Your task to perform on an android device: open chrome and create a bookmark for the current page Image 0: 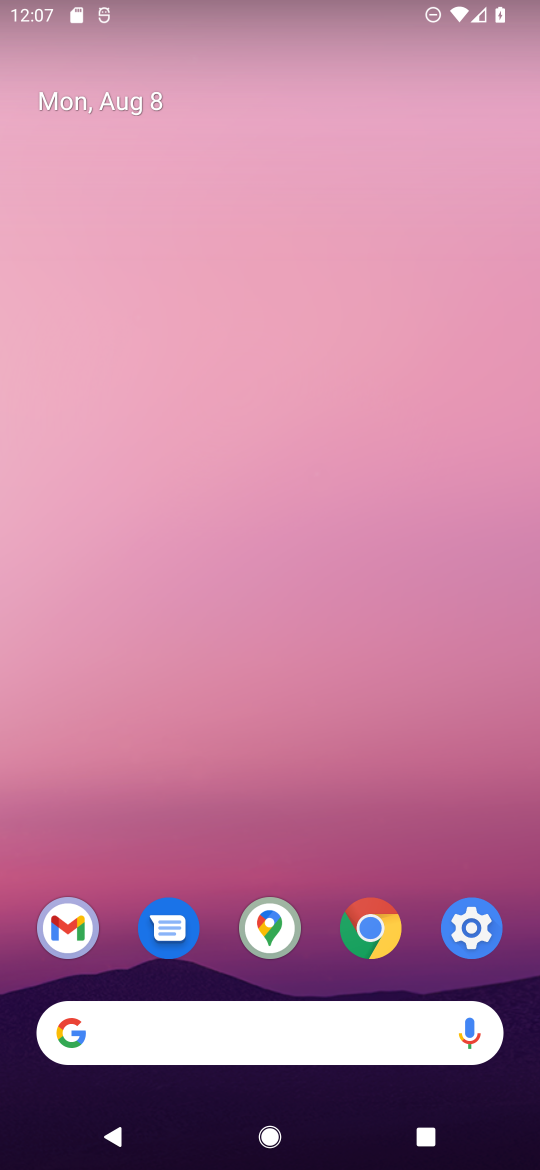
Step 0: press home button
Your task to perform on an android device: open chrome and create a bookmark for the current page Image 1: 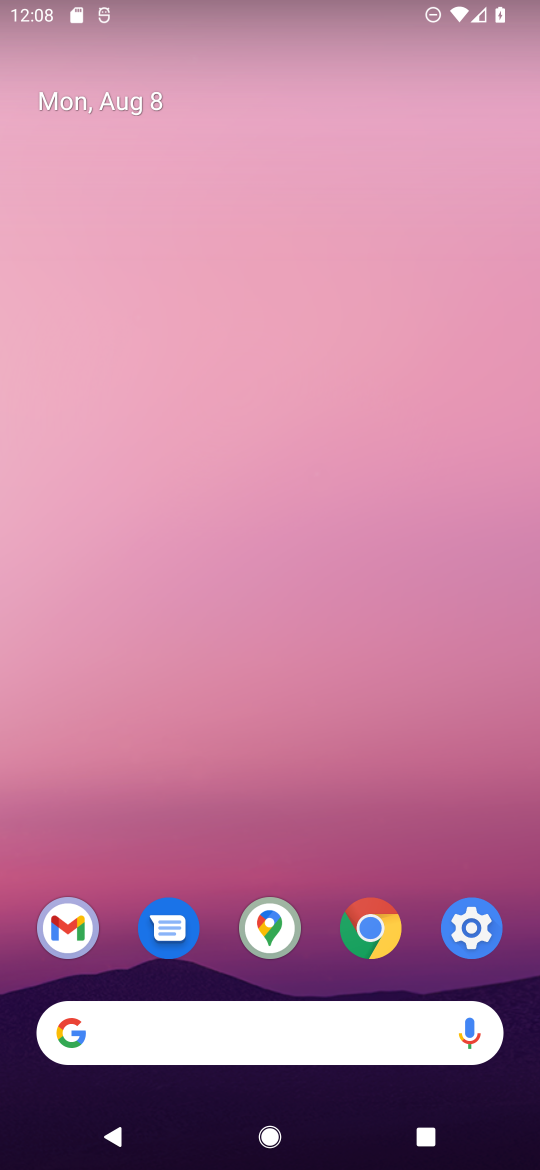
Step 1: drag from (341, 1080) to (199, 51)
Your task to perform on an android device: open chrome and create a bookmark for the current page Image 2: 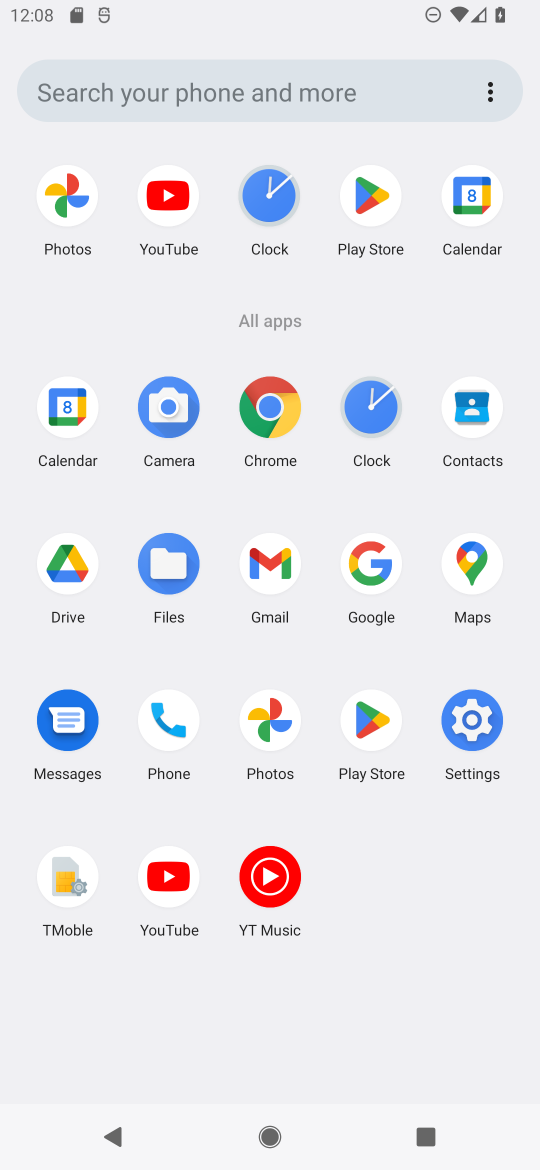
Step 2: click (268, 419)
Your task to perform on an android device: open chrome and create a bookmark for the current page Image 3: 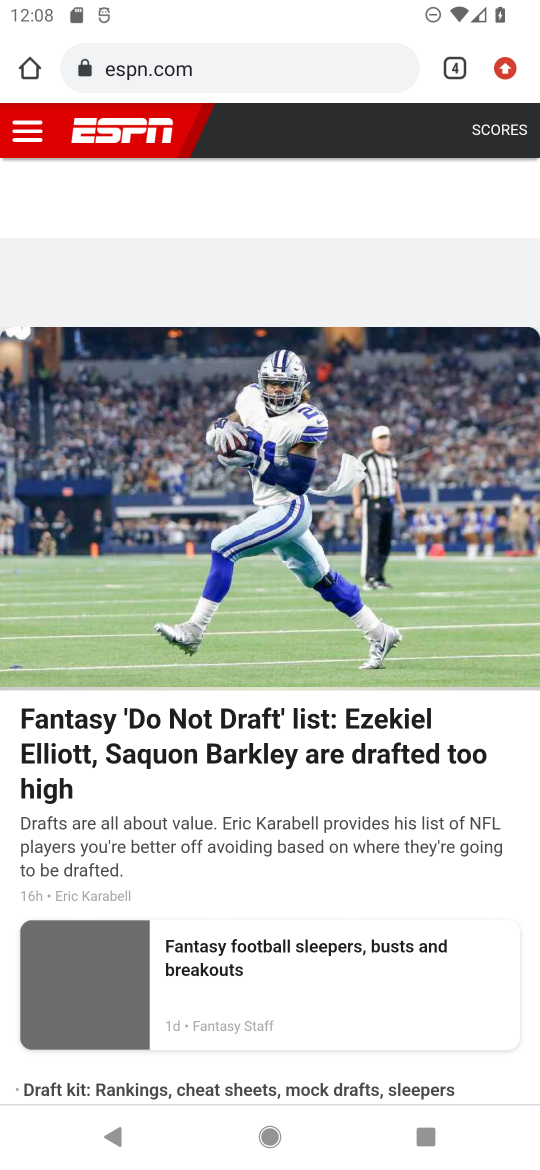
Step 3: click (504, 71)
Your task to perform on an android device: open chrome and create a bookmark for the current page Image 4: 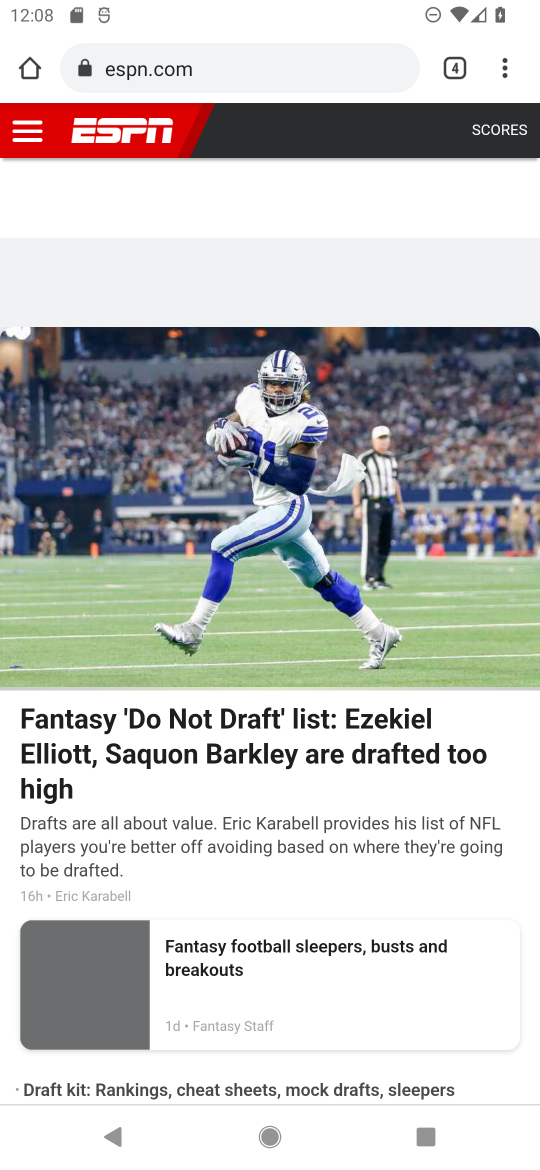
Step 4: click (502, 66)
Your task to perform on an android device: open chrome and create a bookmark for the current page Image 5: 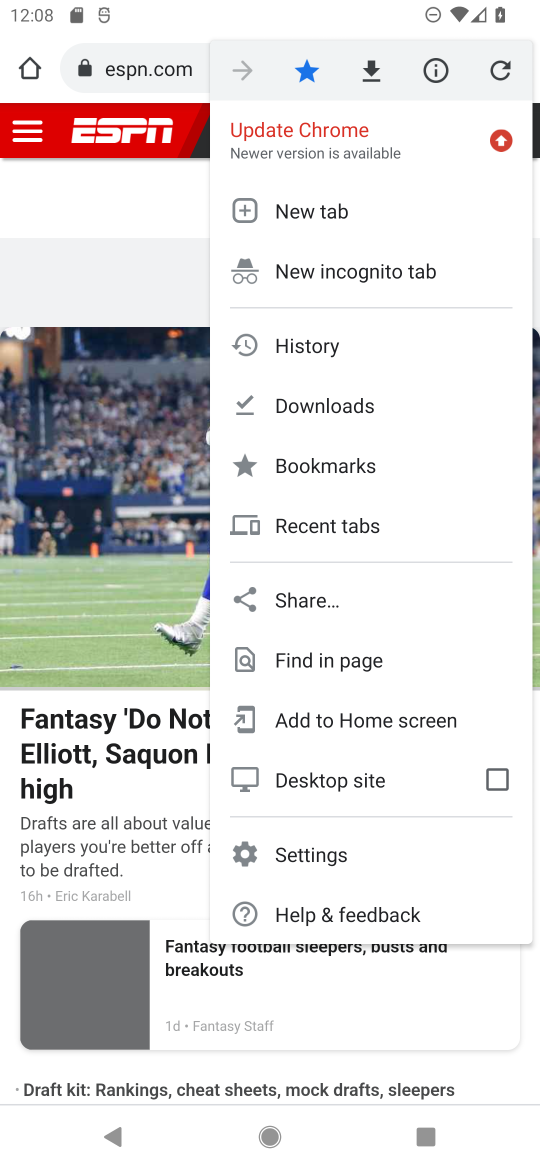
Step 5: click (329, 462)
Your task to perform on an android device: open chrome and create a bookmark for the current page Image 6: 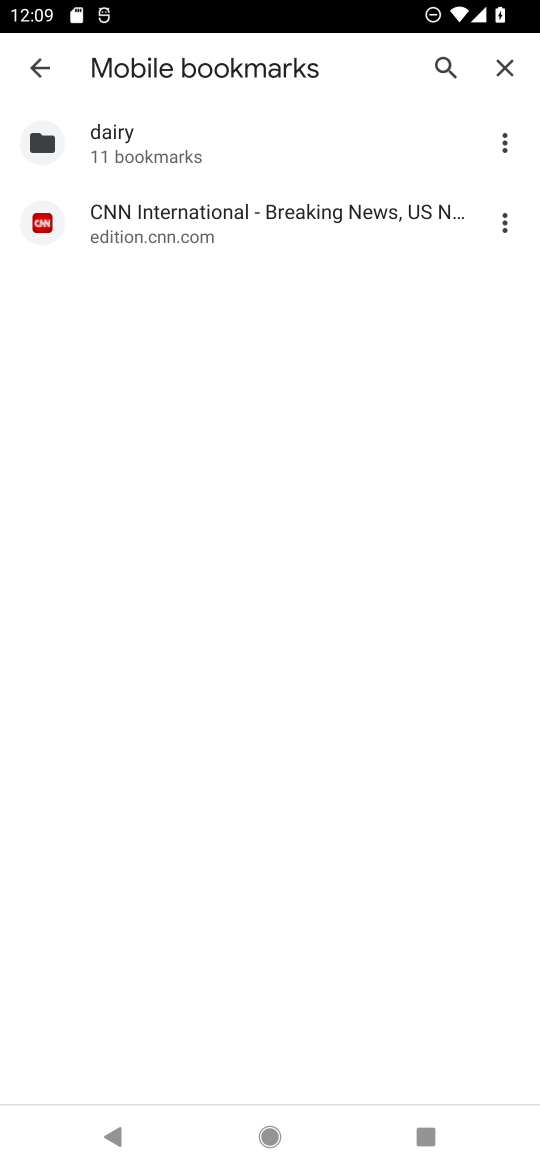
Step 6: task complete